Your task to perform on an android device: Open Youtube and go to "Your channel" Image 0: 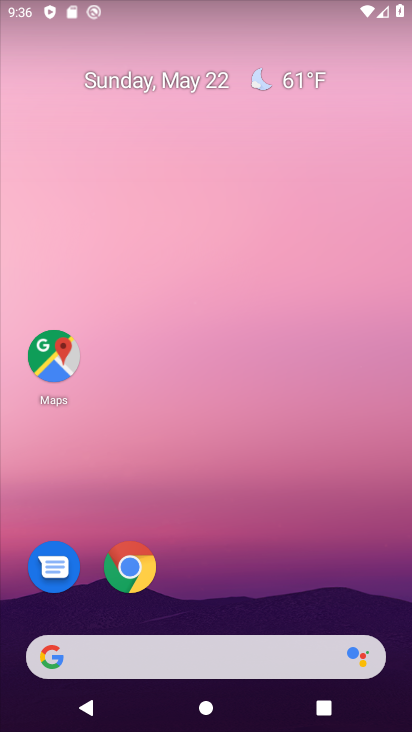
Step 0: drag from (230, 642) to (183, 29)
Your task to perform on an android device: Open Youtube and go to "Your channel" Image 1: 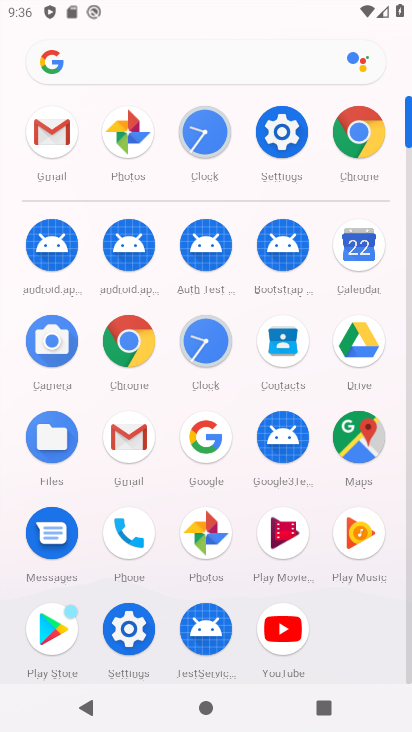
Step 1: click (275, 654)
Your task to perform on an android device: Open Youtube and go to "Your channel" Image 2: 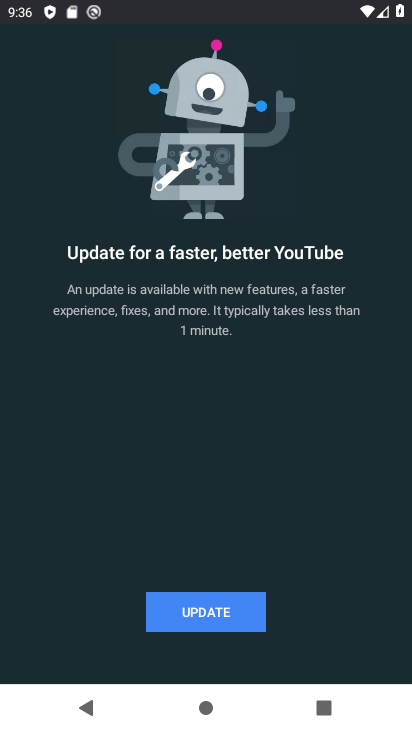
Step 2: click (155, 625)
Your task to perform on an android device: Open Youtube and go to "Your channel" Image 3: 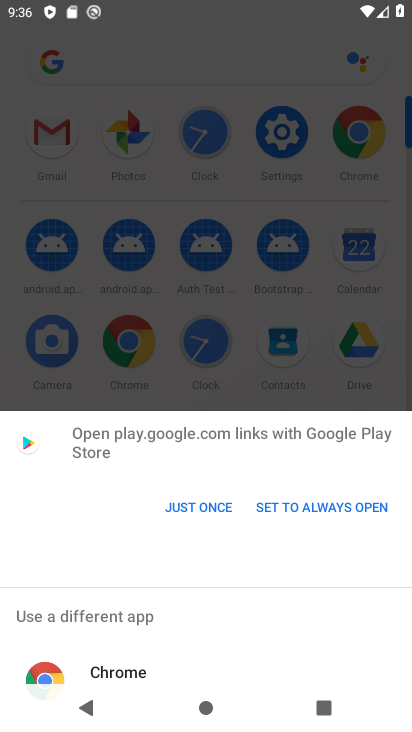
Step 3: click (205, 511)
Your task to perform on an android device: Open Youtube and go to "Your channel" Image 4: 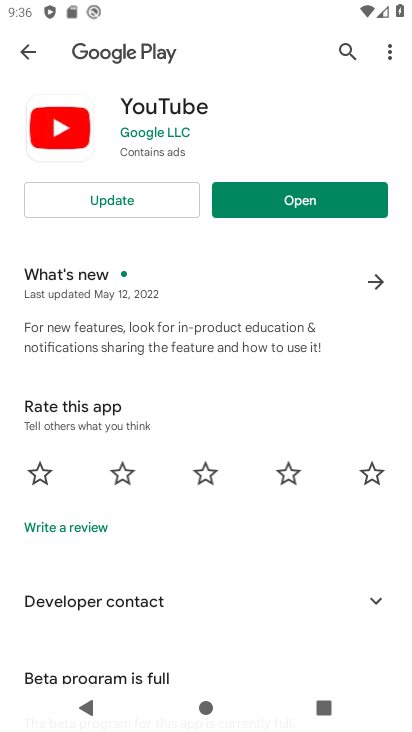
Step 4: click (171, 201)
Your task to perform on an android device: Open Youtube and go to "Your channel" Image 5: 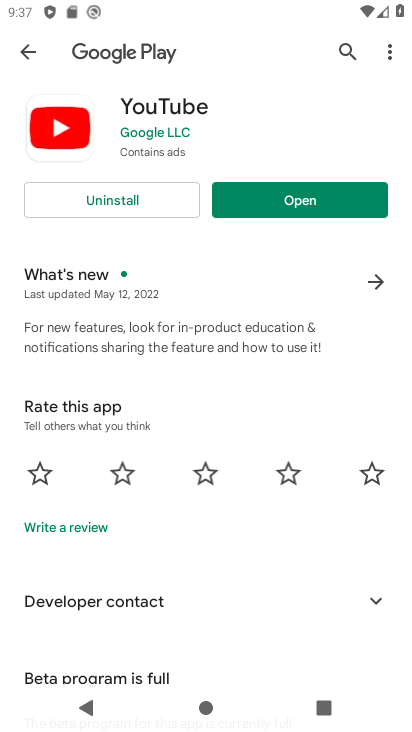
Step 5: click (347, 194)
Your task to perform on an android device: Open Youtube and go to "Your channel" Image 6: 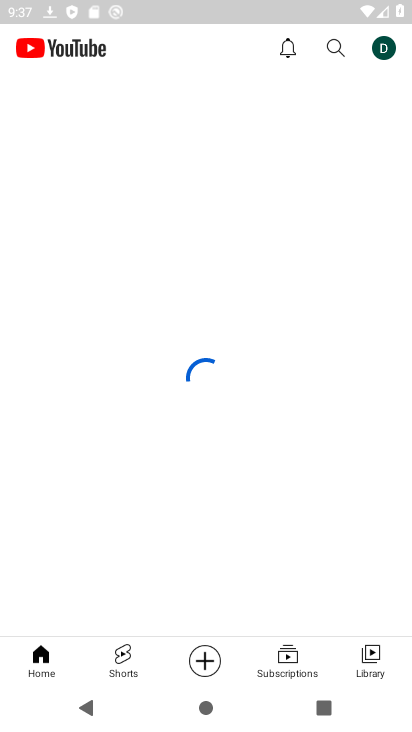
Step 6: click (385, 46)
Your task to perform on an android device: Open Youtube and go to "Your channel" Image 7: 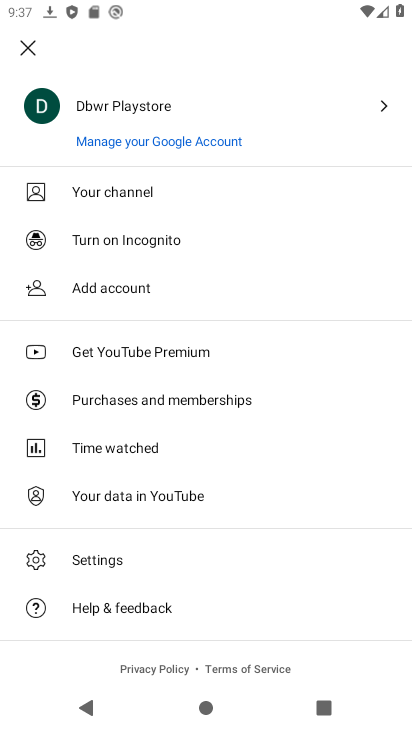
Step 7: click (123, 198)
Your task to perform on an android device: Open Youtube and go to "Your channel" Image 8: 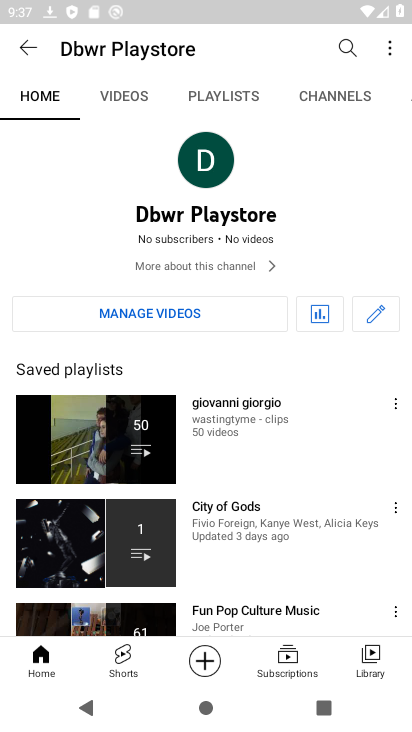
Step 8: task complete